Your task to perform on an android device: Open Google Maps and go to "Timeline" Image 0: 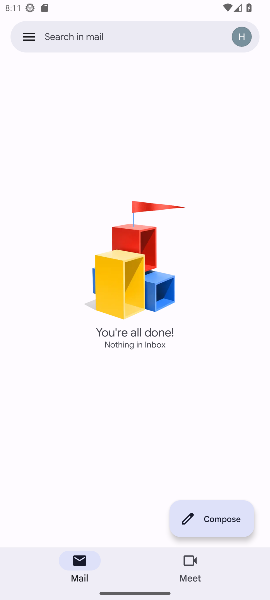
Step 0: press home button
Your task to perform on an android device: Open Google Maps and go to "Timeline" Image 1: 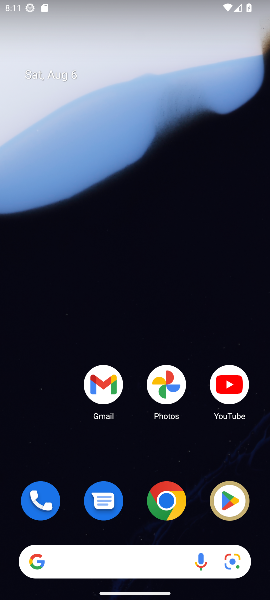
Step 1: drag from (45, 532) to (93, 194)
Your task to perform on an android device: Open Google Maps and go to "Timeline" Image 2: 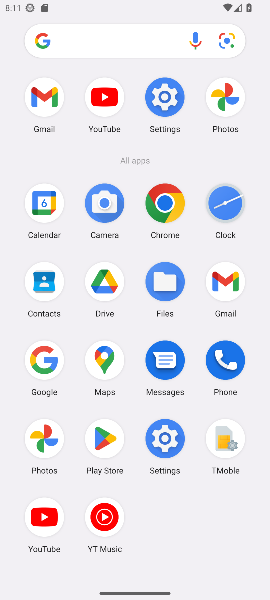
Step 2: click (107, 356)
Your task to perform on an android device: Open Google Maps and go to "Timeline" Image 3: 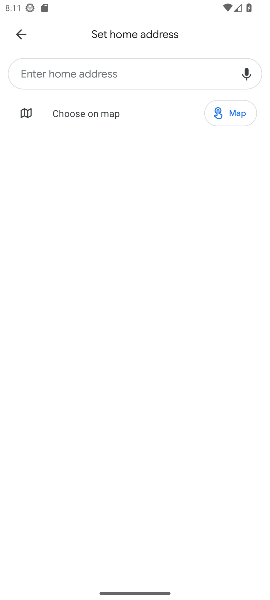
Step 3: click (22, 34)
Your task to perform on an android device: Open Google Maps and go to "Timeline" Image 4: 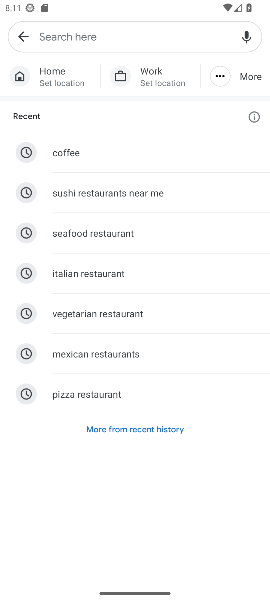
Step 4: click (23, 26)
Your task to perform on an android device: Open Google Maps and go to "Timeline" Image 5: 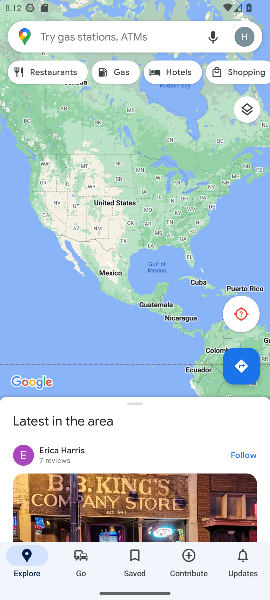
Step 5: task complete